Your task to perform on an android device: Clear the cart on ebay. Add apple airpods pro to the cart on ebay, then select checkout. Image 0: 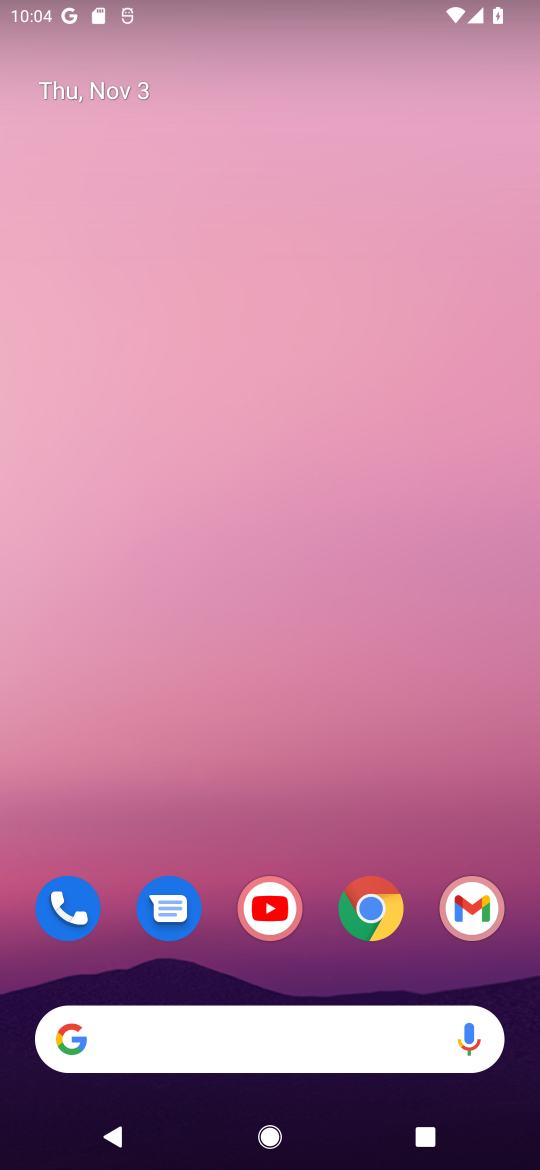
Step 0: click (378, 919)
Your task to perform on an android device: Clear the cart on ebay. Add apple airpods pro to the cart on ebay, then select checkout. Image 1: 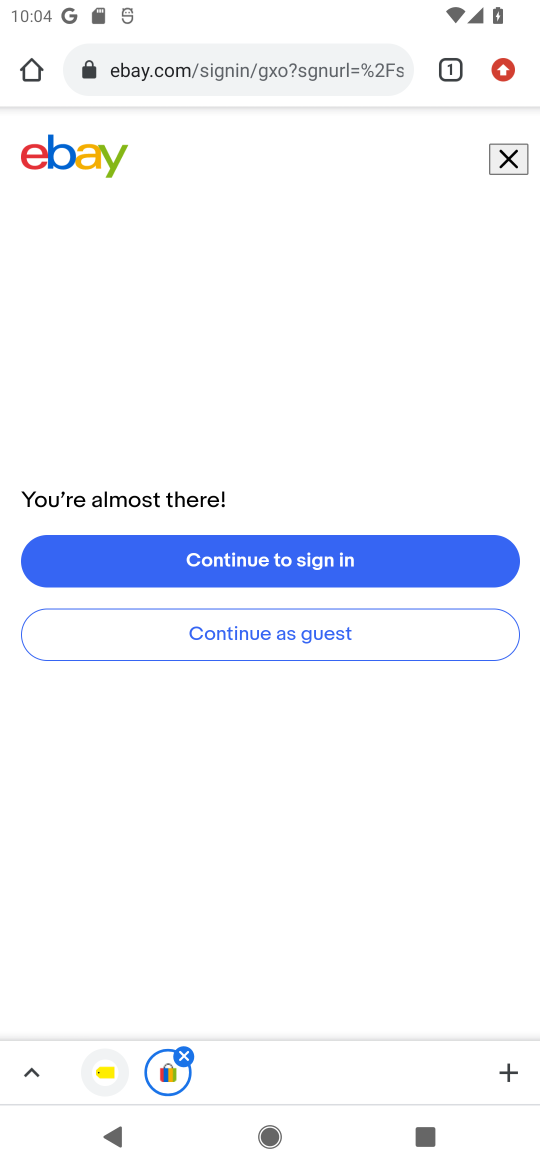
Step 1: press home button
Your task to perform on an android device: Clear the cart on ebay. Add apple airpods pro to the cart on ebay, then select checkout. Image 2: 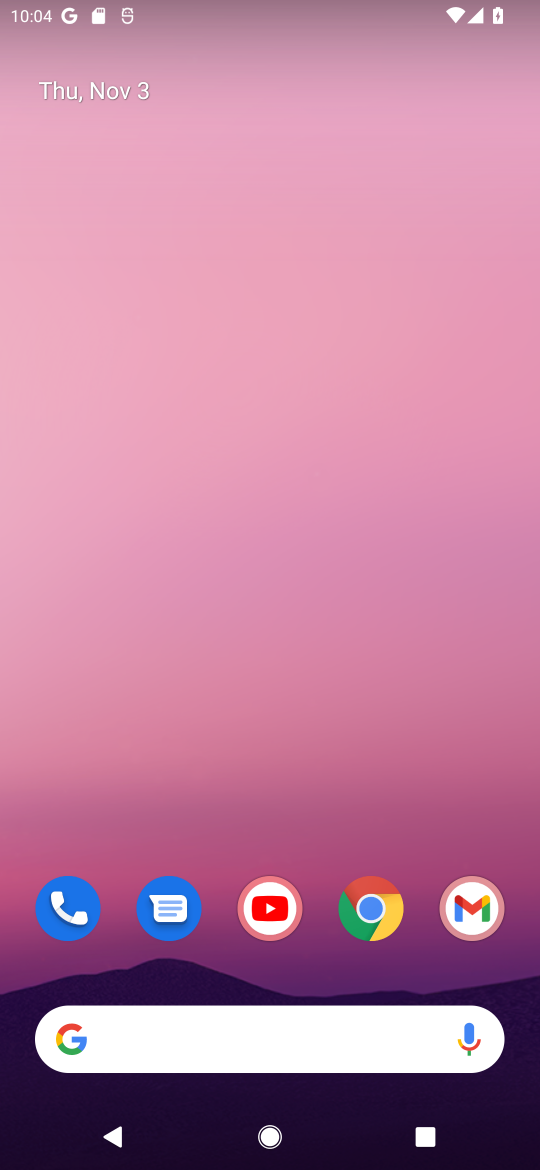
Step 2: click (383, 900)
Your task to perform on an android device: Clear the cart on ebay. Add apple airpods pro to the cart on ebay, then select checkout. Image 3: 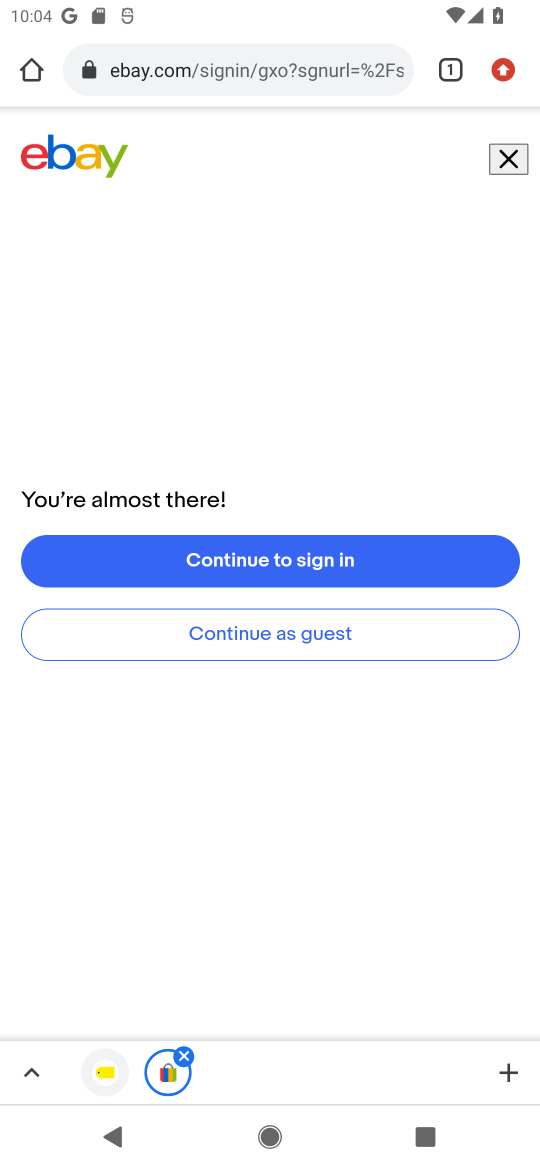
Step 3: click (518, 155)
Your task to perform on an android device: Clear the cart on ebay. Add apple airpods pro to the cart on ebay, then select checkout. Image 4: 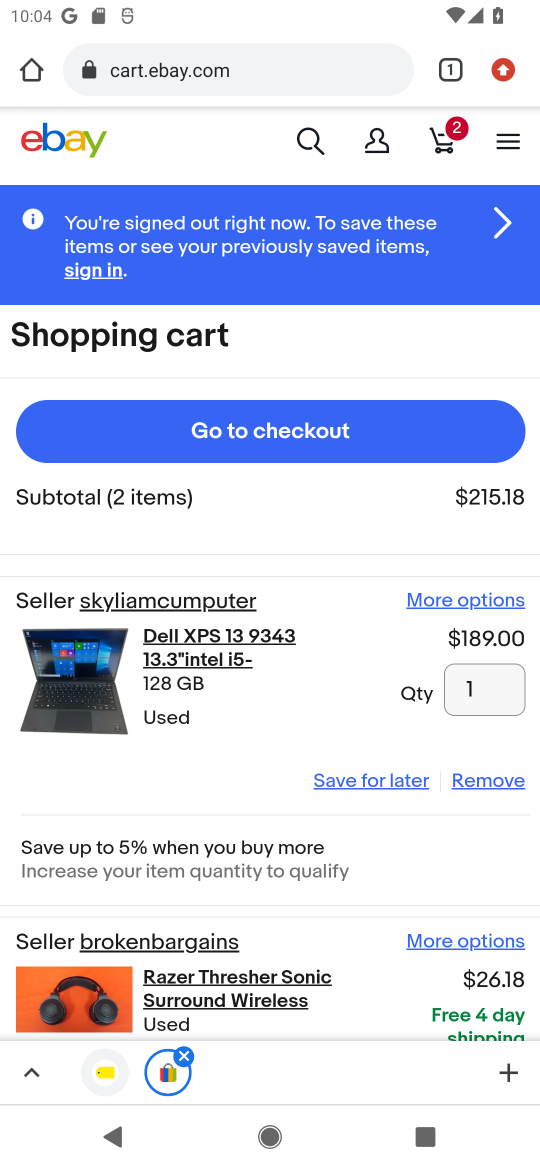
Step 4: click (443, 151)
Your task to perform on an android device: Clear the cart on ebay. Add apple airpods pro to the cart on ebay, then select checkout. Image 5: 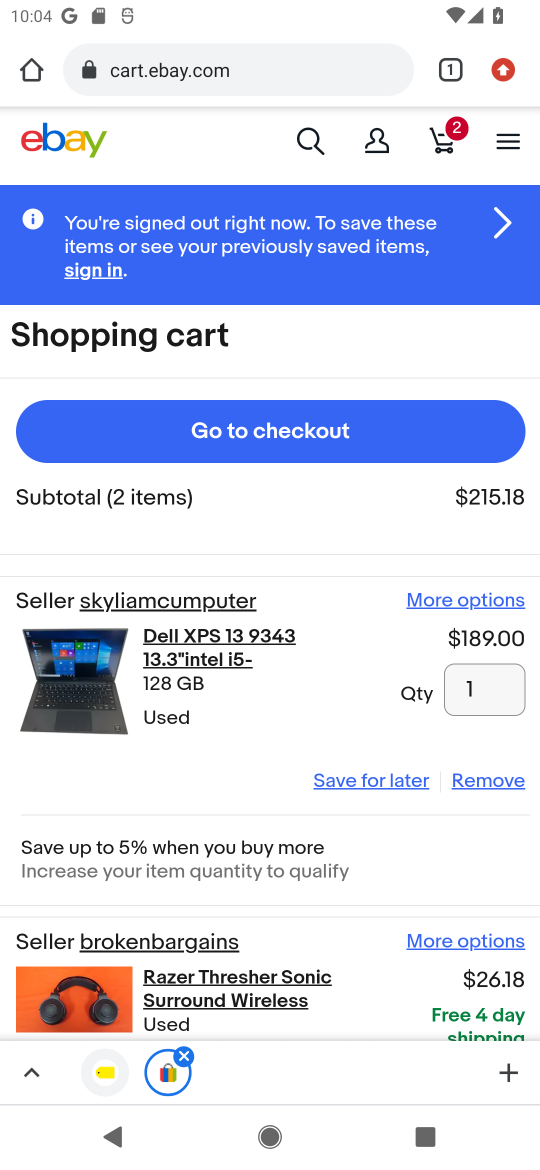
Step 5: click (490, 782)
Your task to perform on an android device: Clear the cart on ebay. Add apple airpods pro to the cart on ebay, then select checkout. Image 6: 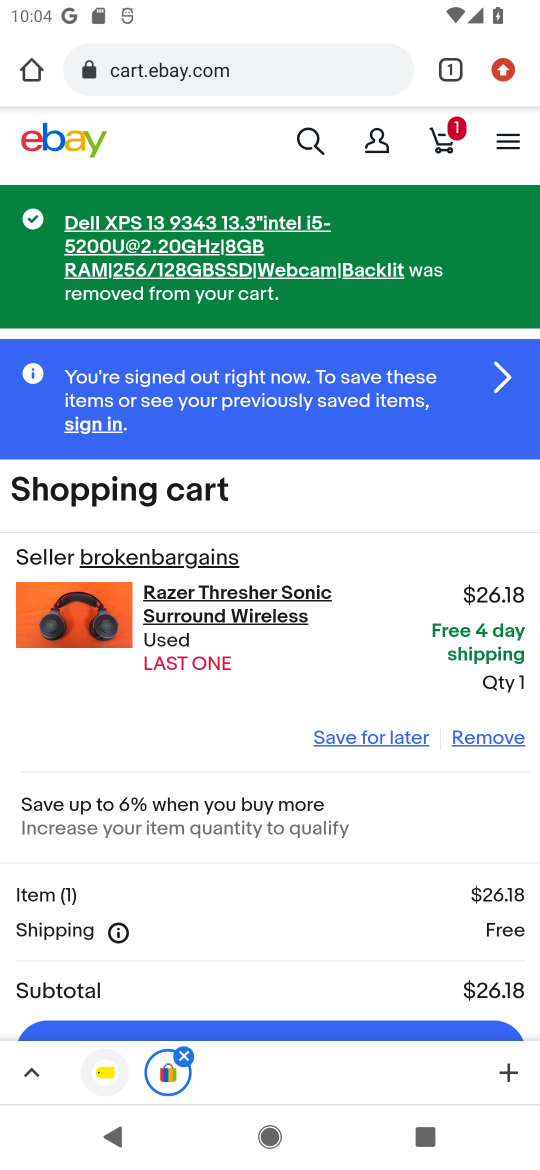
Step 6: click (484, 728)
Your task to perform on an android device: Clear the cart on ebay. Add apple airpods pro to the cart on ebay, then select checkout. Image 7: 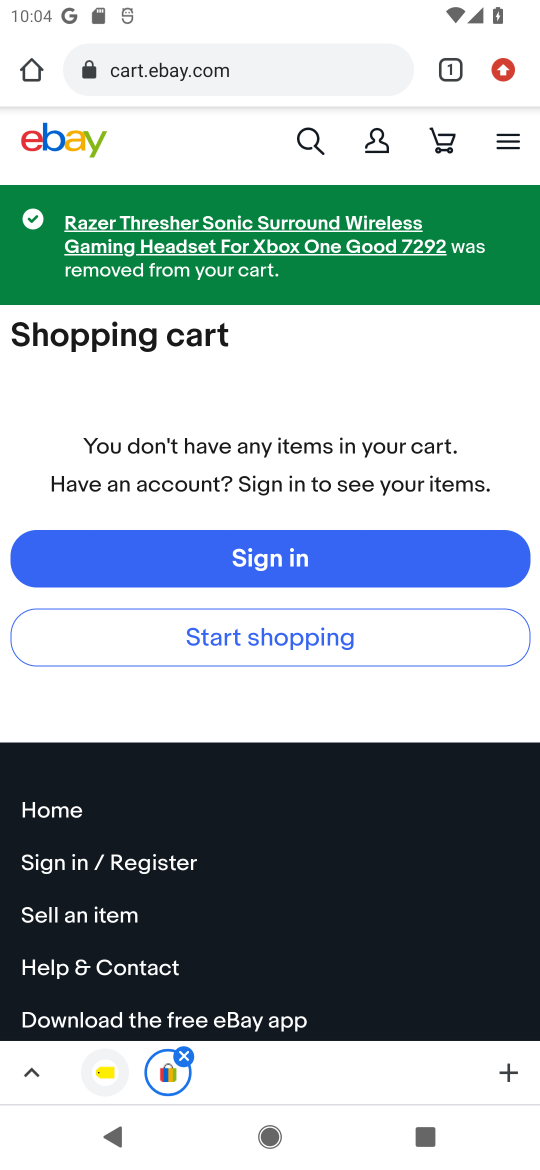
Step 7: click (309, 138)
Your task to perform on an android device: Clear the cart on ebay. Add apple airpods pro to the cart on ebay, then select checkout. Image 8: 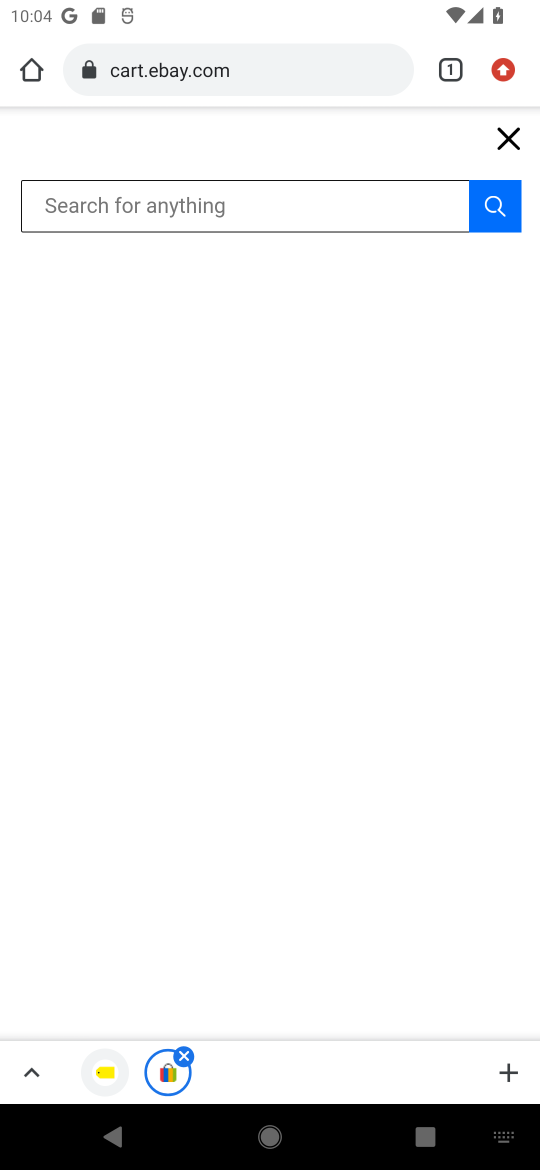
Step 8: type "apple airpods pro "
Your task to perform on an android device: Clear the cart on ebay. Add apple airpods pro to the cart on ebay, then select checkout. Image 9: 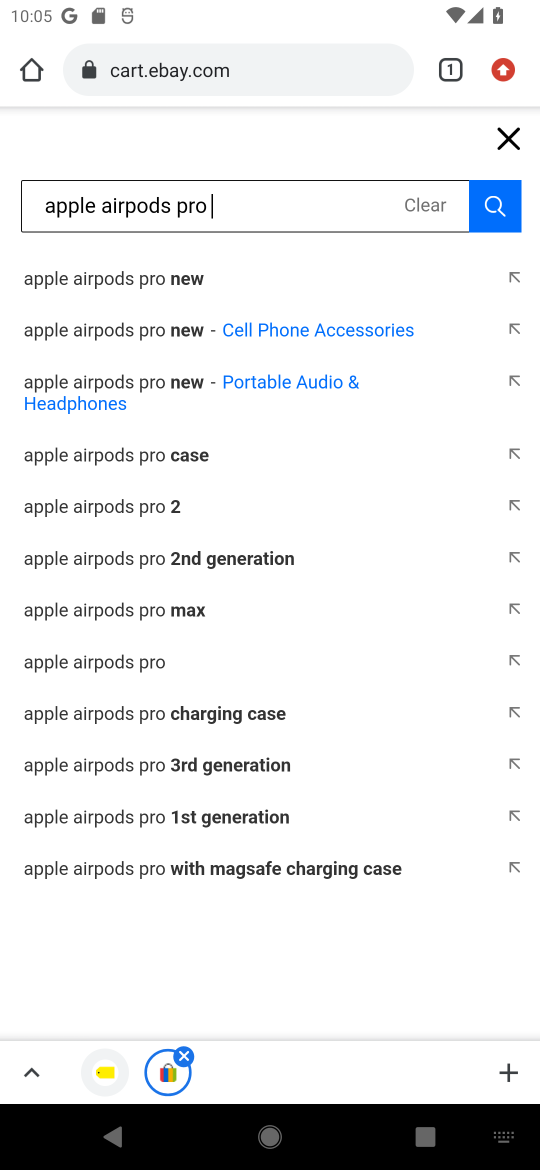
Step 9: click (141, 656)
Your task to perform on an android device: Clear the cart on ebay. Add apple airpods pro to the cart on ebay, then select checkout. Image 10: 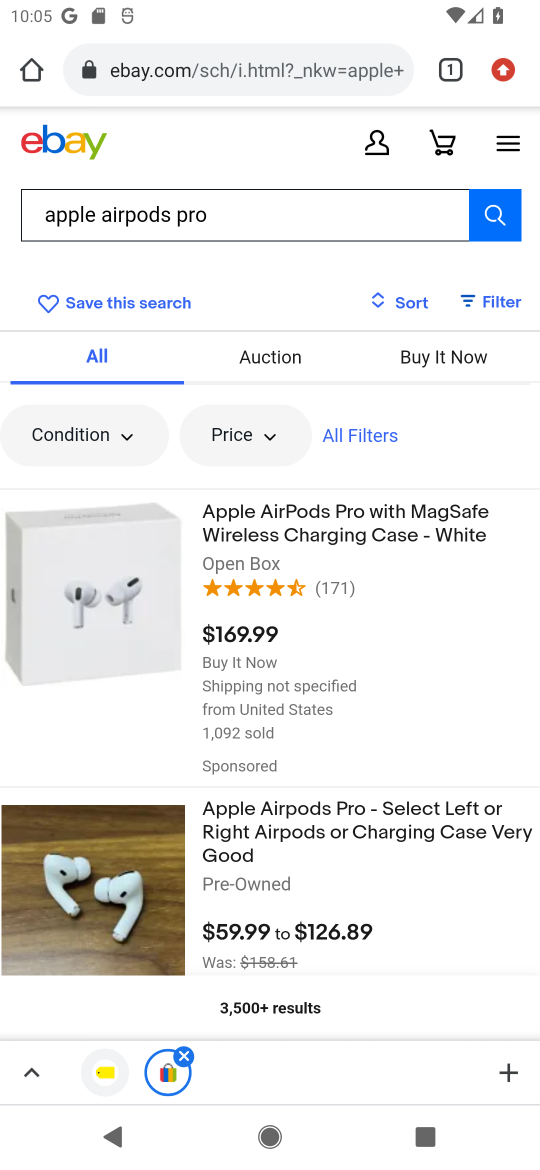
Step 10: click (125, 561)
Your task to perform on an android device: Clear the cart on ebay. Add apple airpods pro to the cart on ebay, then select checkout. Image 11: 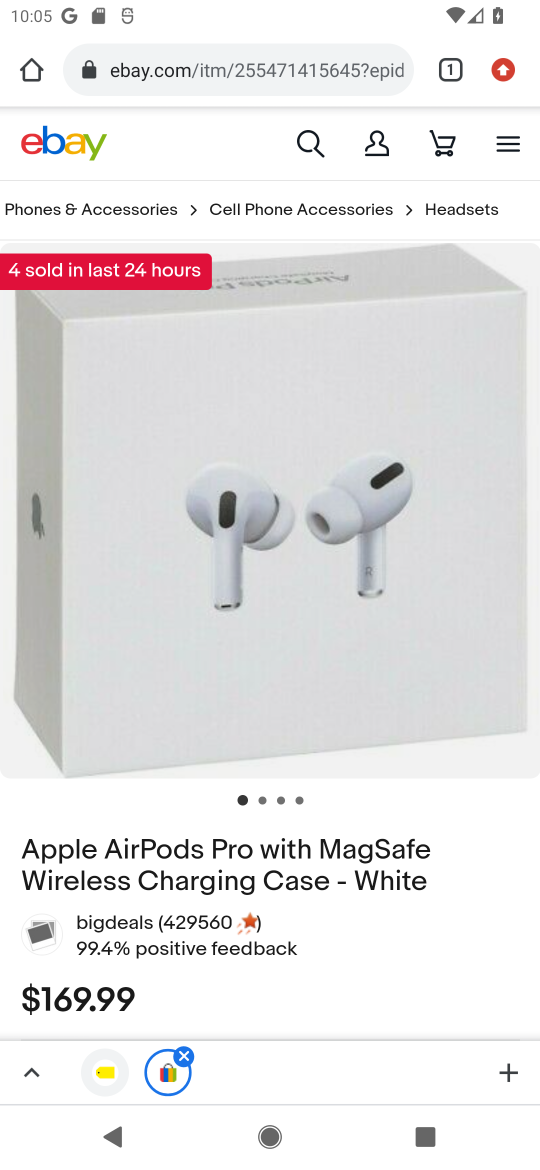
Step 11: drag from (339, 742) to (334, 445)
Your task to perform on an android device: Clear the cart on ebay. Add apple airpods pro to the cart on ebay, then select checkout. Image 12: 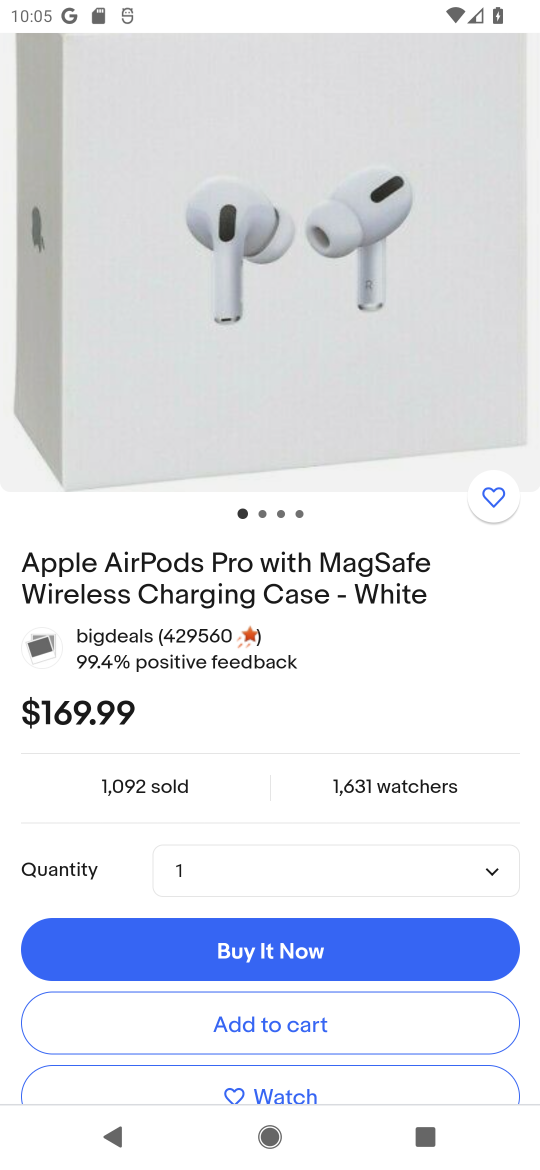
Step 12: click (332, 1028)
Your task to perform on an android device: Clear the cart on ebay. Add apple airpods pro to the cart on ebay, then select checkout. Image 13: 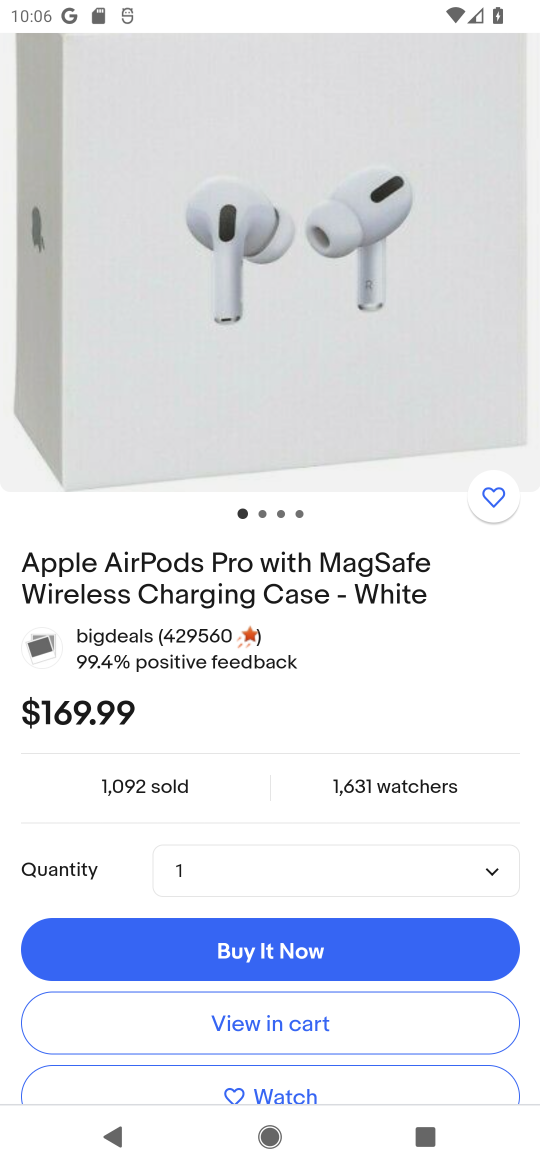
Step 13: click (332, 1028)
Your task to perform on an android device: Clear the cart on ebay. Add apple airpods pro to the cart on ebay, then select checkout. Image 14: 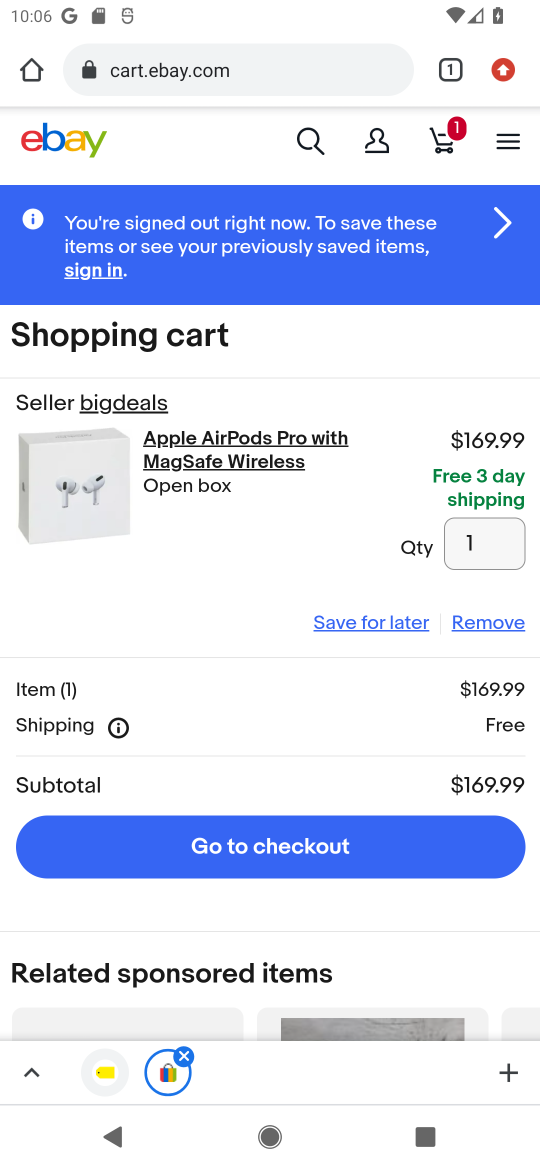
Step 14: click (306, 854)
Your task to perform on an android device: Clear the cart on ebay. Add apple airpods pro to the cart on ebay, then select checkout. Image 15: 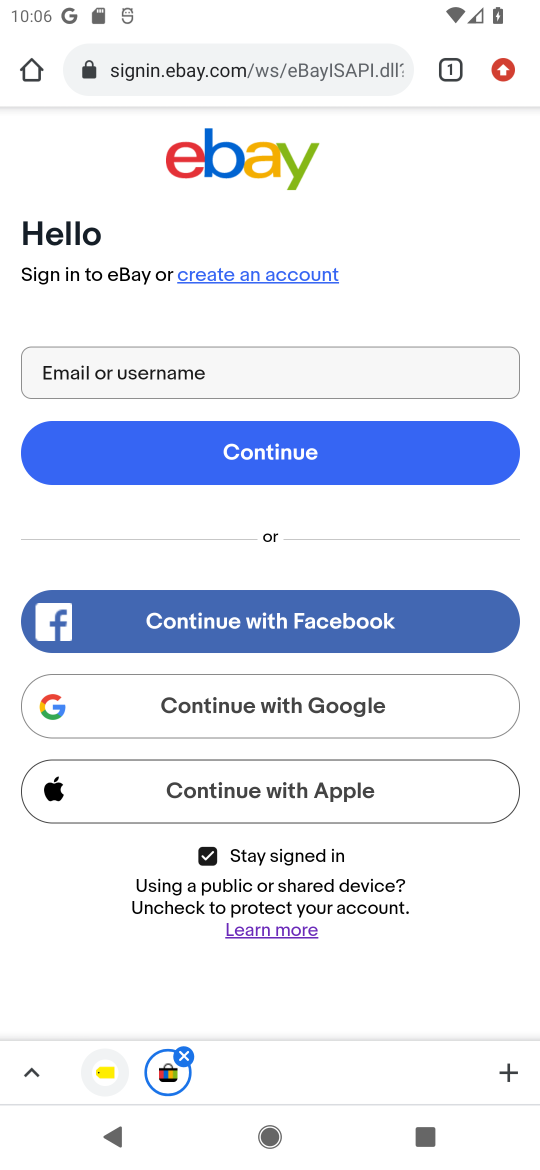
Step 15: task complete